Your task to perform on an android device: turn on the 24-hour format for clock Image 0: 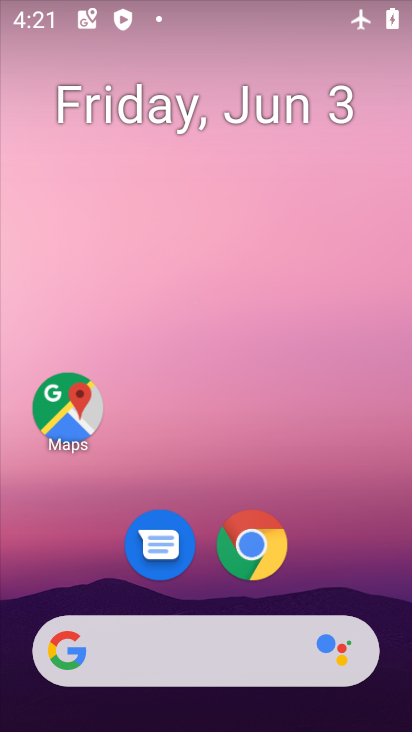
Step 0: drag from (64, 601) to (173, 240)
Your task to perform on an android device: turn on the 24-hour format for clock Image 1: 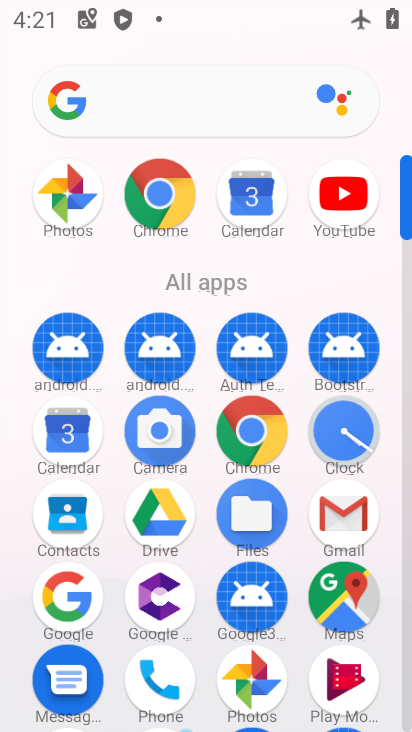
Step 1: click (327, 452)
Your task to perform on an android device: turn on the 24-hour format for clock Image 2: 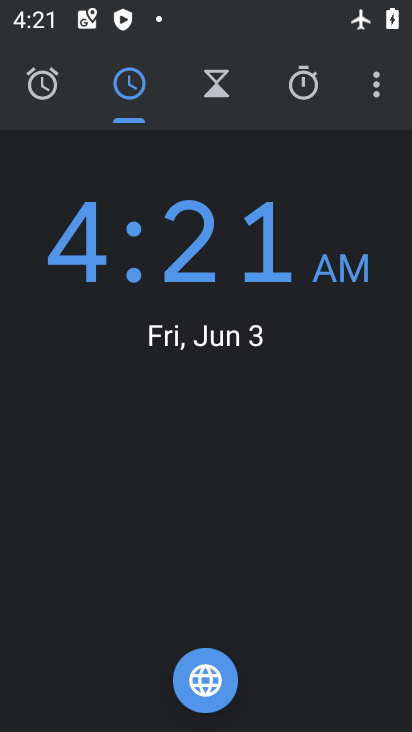
Step 2: click (373, 98)
Your task to perform on an android device: turn on the 24-hour format for clock Image 3: 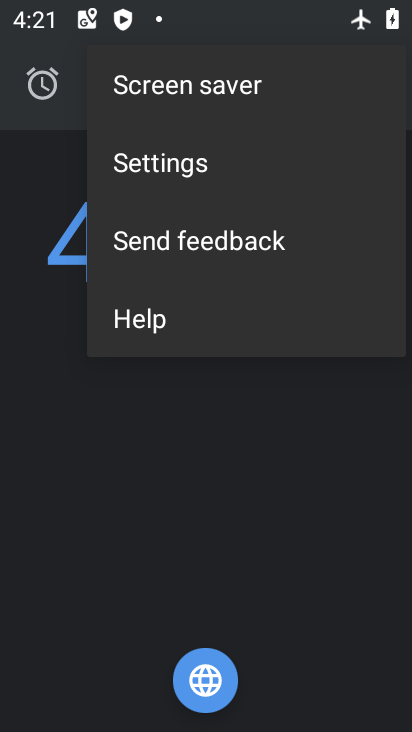
Step 3: click (305, 134)
Your task to perform on an android device: turn on the 24-hour format for clock Image 4: 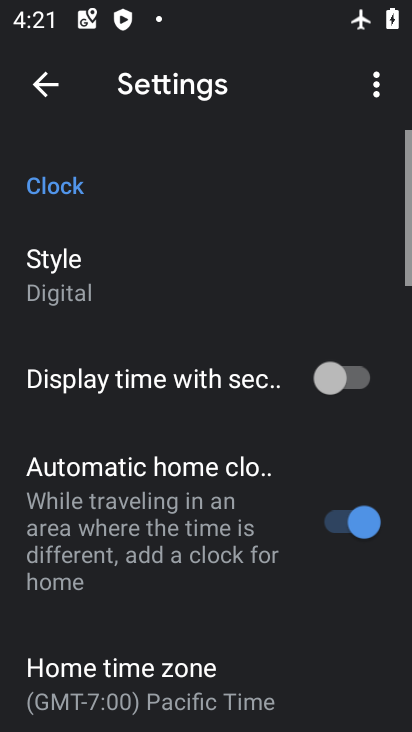
Step 4: drag from (185, 590) to (241, 203)
Your task to perform on an android device: turn on the 24-hour format for clock Image 5: 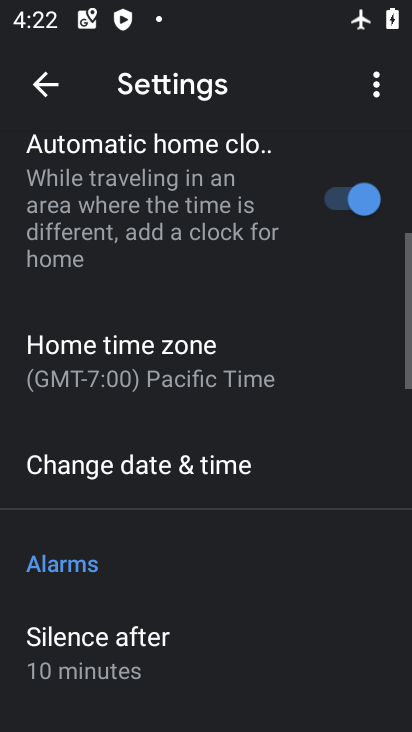
Step 5: click (194, 479)
Your task to perform on an android device: turn on the 24-hour format for clock Image 6: 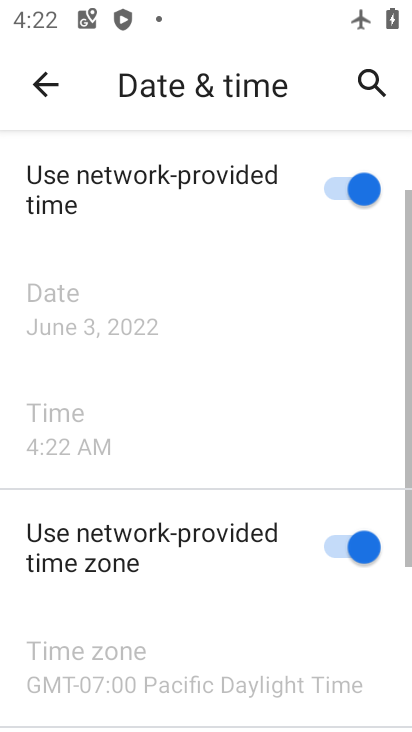
Step 6: drag from (208, 621) to (332, 7)
Your task to perform on an android device: turn on the 24-hour format for clock Image 7: 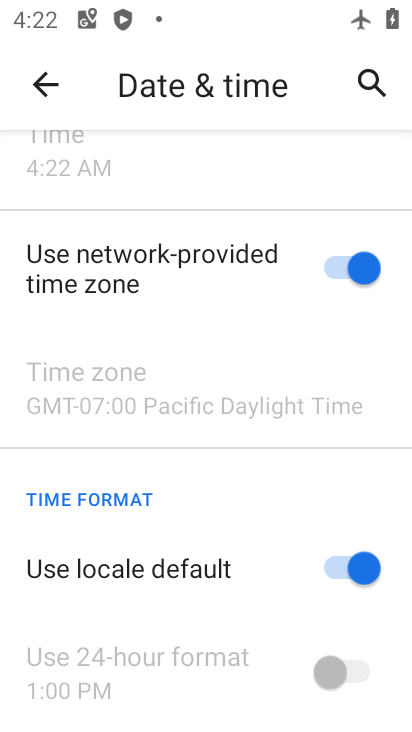
Step 7: click (352, 592)
Your task to perform on an android device: turn on the 24-hour format for clock Image 8: 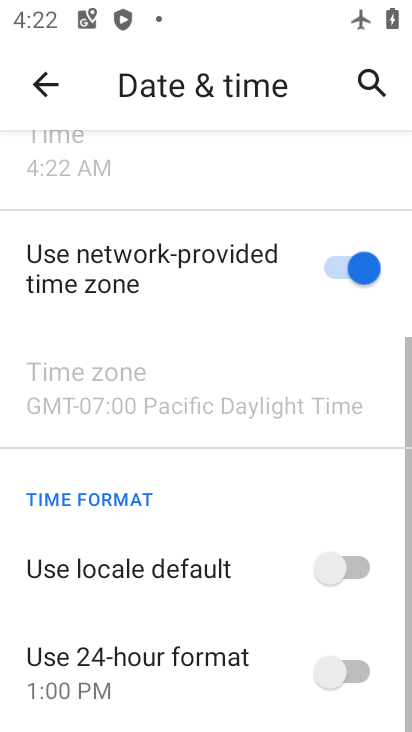
Step 8: click (365, 652)
Your task to perform on an android device: turn on the 24-hour format for clock Image 9: 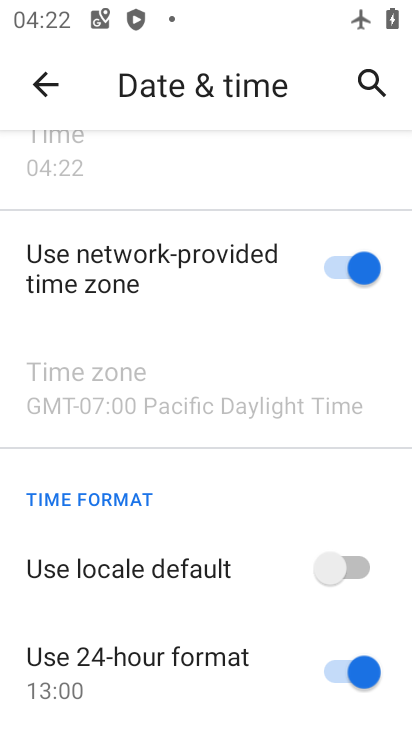
Step 9: task complete